Your task to perform on an android device: find snoozed emails in the gmail app Image 0: 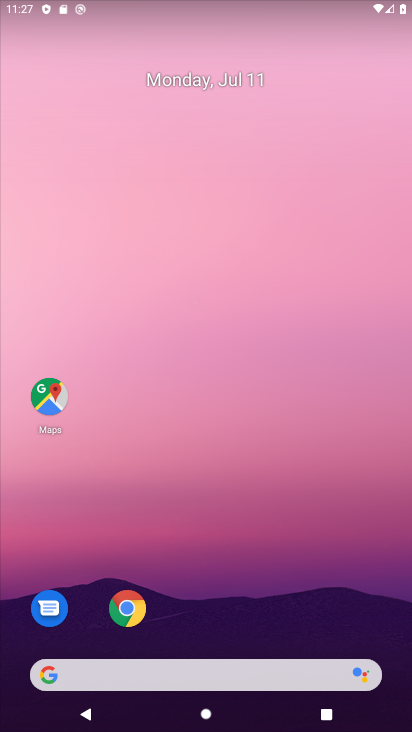
Step 0: drag from (212, 606) to (149, 15)
Your task to perform on an android device: find snoozed emails in the gmail app Image 1: 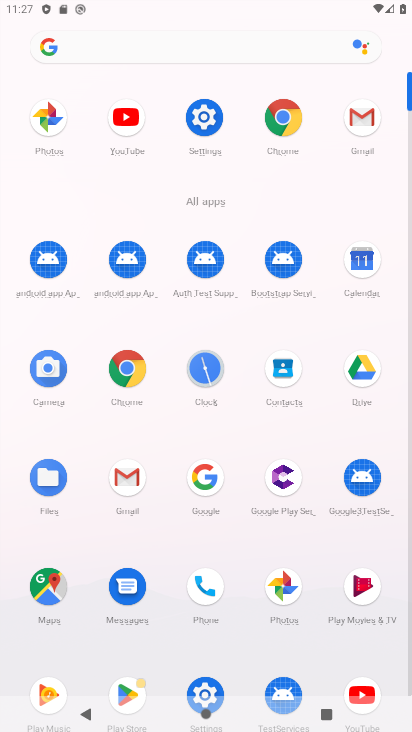
Step 1: click (359, 132)
Your task to perform on an android device: find snoozed emails in the gmail app Image 2: 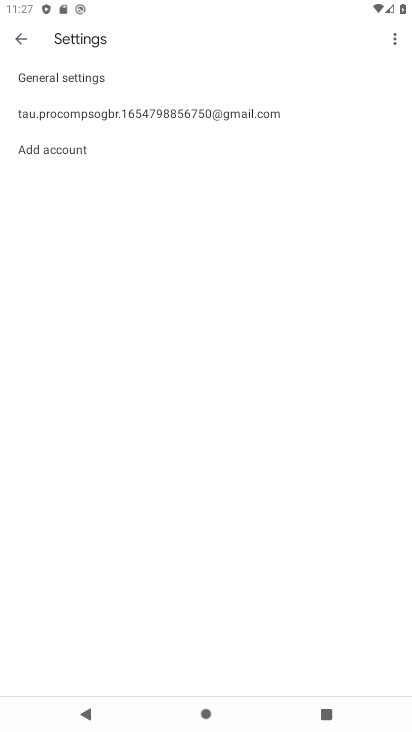
Step 2: click (26, 51)
Your task to perform on an android device: find snoozed emails in the gmail app Image 3: 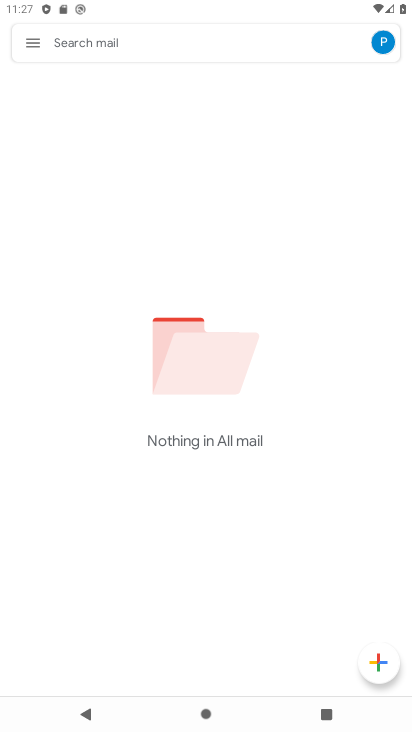
Step 3: click (26, 51)
Your task to perform on an android device: find snoozed emails in the gmail app Image 4: 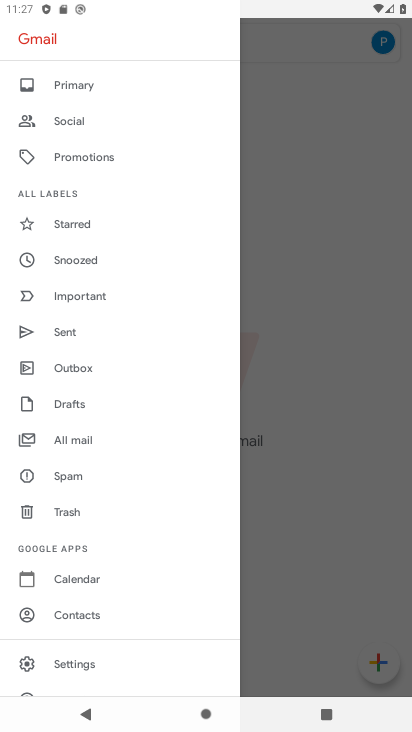
Step 4: click (82, 260)
Your task to perform on an android device: find snoozed emails in the gmail app Image 5: 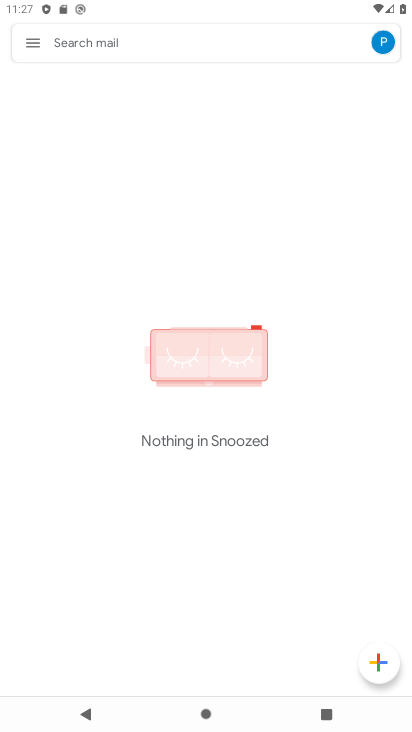
Step 5: task complete